Your task to perform on an android device: uninstall "Facebook" Image 0: 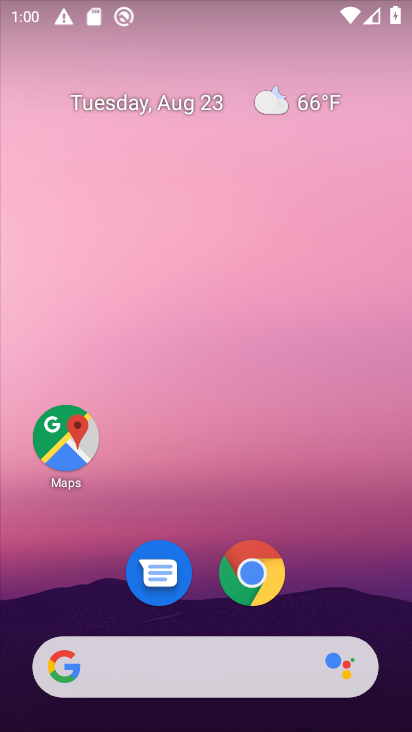
Step 0: drag from (216, 471) to (291, 8)
Your task to perform on an android device: uninstall "Facebook" Image 1: 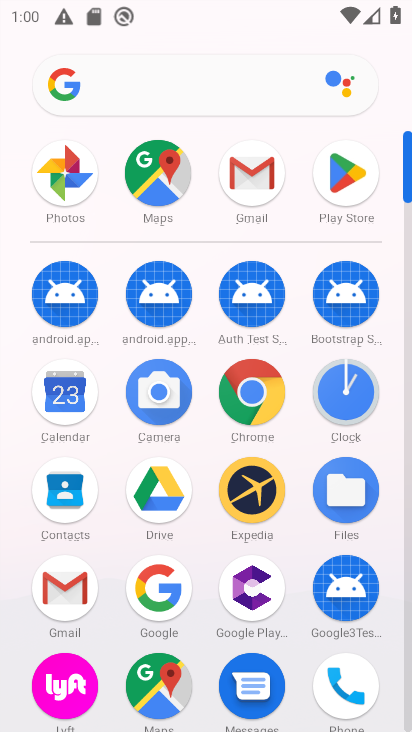
Step 1: click (330, 191)
Your task to perform on an android device: uninstall "Facebook" Image 2: 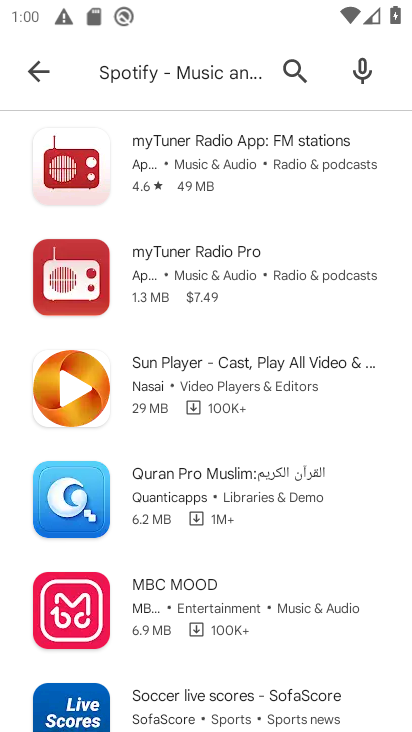
Step 2: click (287, 53)
Your task to perform on an android device: uninstall "Facebook" Image 3: 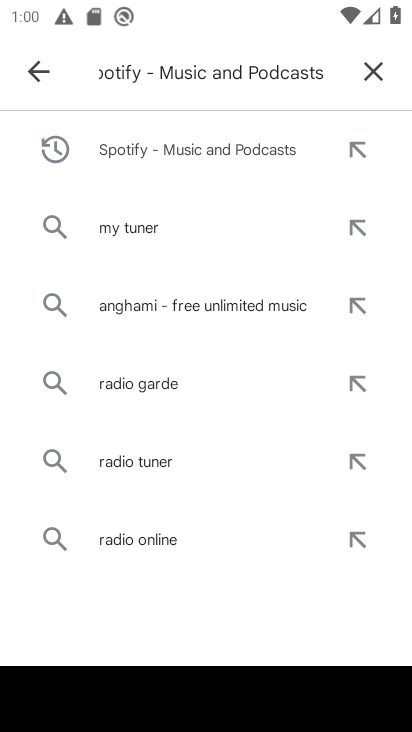
Step 3: click (376, 62)
Your task to perform on an android device: uninstall "Facebook" Image 4: 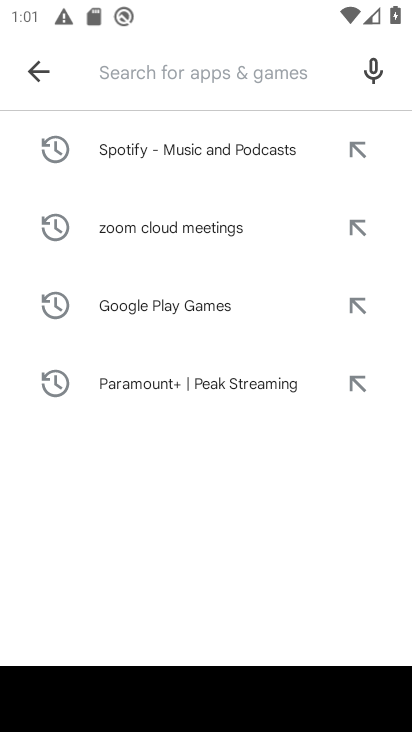
Step 4: type "Facebook"
Your task to perform on an android device: uninstall "Facebook" Image 5: 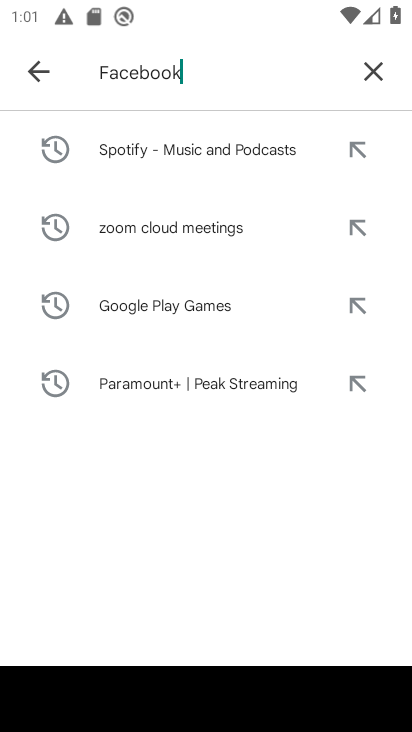
Step 5: type ""
Your task to perform on an android device: uninstall "Facebook" Image 6: 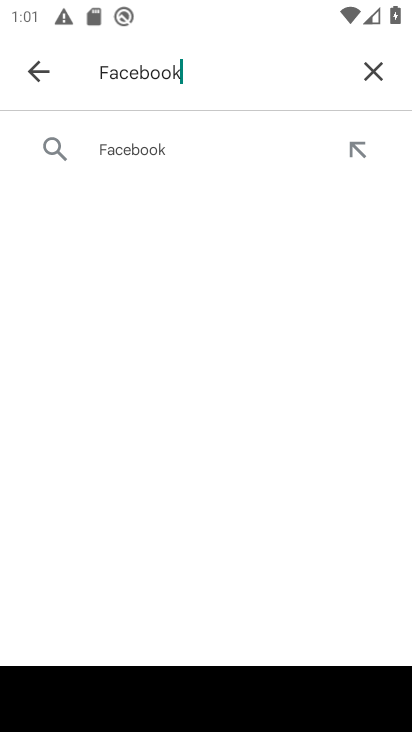
Step 6: click (167, 148)
Your task to perform on an android device: uninstall "Facebook" Image 7: 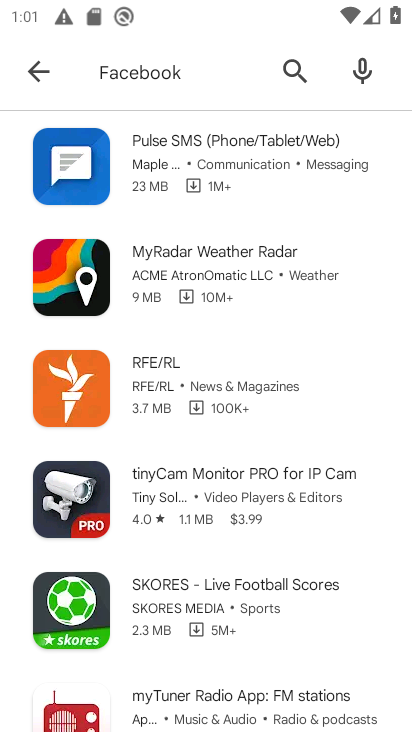
Step 7: task complete